Your task to perform on an android device: open chrome privacy settings Image 0: 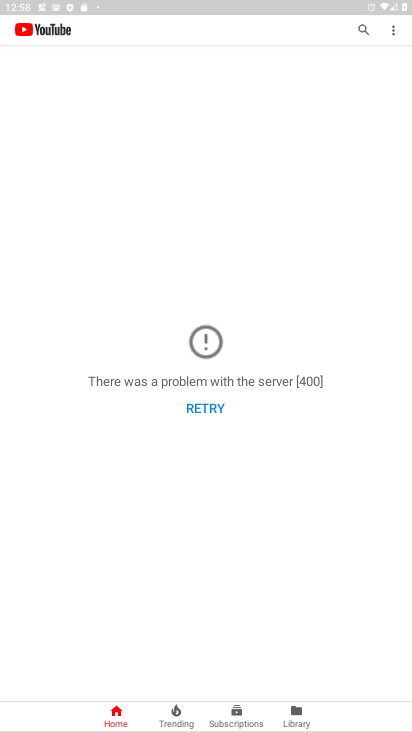
Step 0: press home button
Your task to perform on an android device: open chrome privacy settings Image 1: 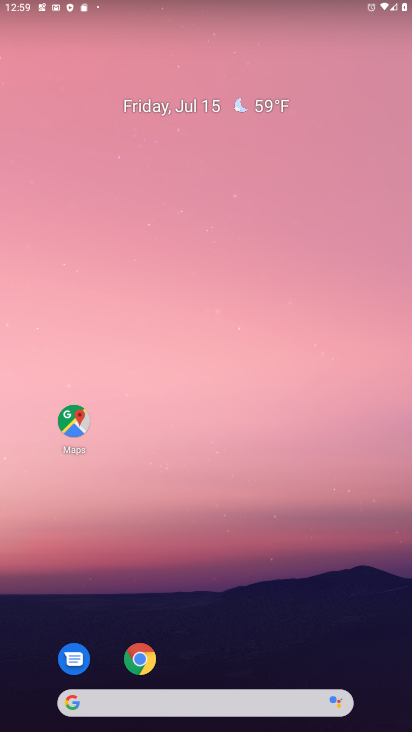
Step 1: click (139, 661)
Your task to perform on an android device: open chrome privacy settings Image 2: 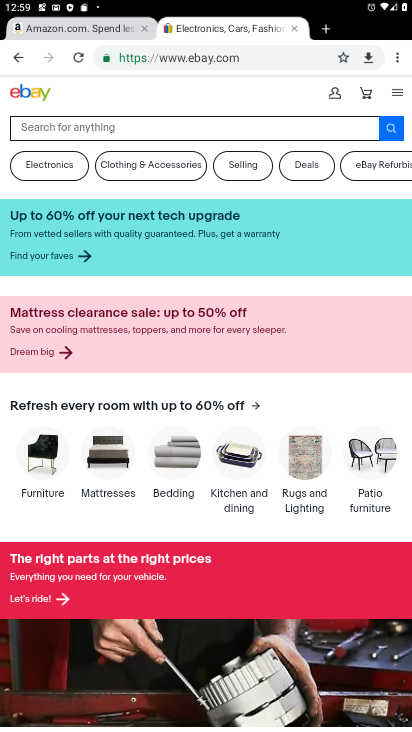
Step 2: click (397, 61)
Your task to perform on an android device: open chrome privacy settings Image 3: 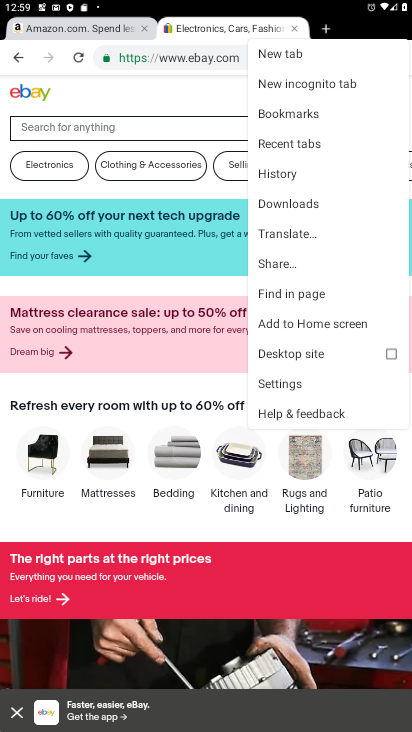
Step 3: click (282, 380)
Your task to perform on an android device: open chrome privacy settings Image 4: 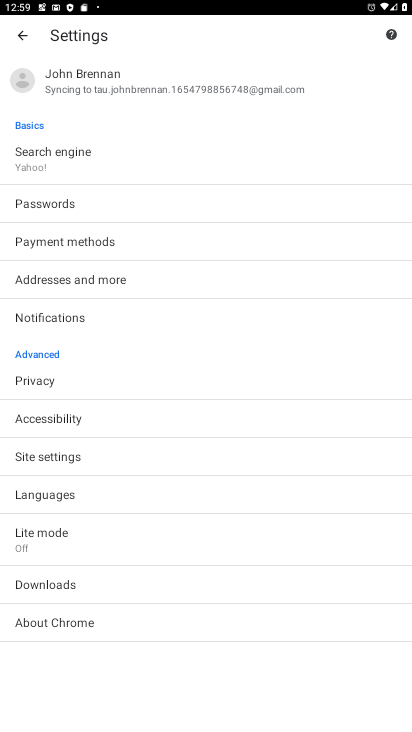
Step 4: click (42, 379)
Your task to perform on an android device: open chrome privacy settings Image 5: 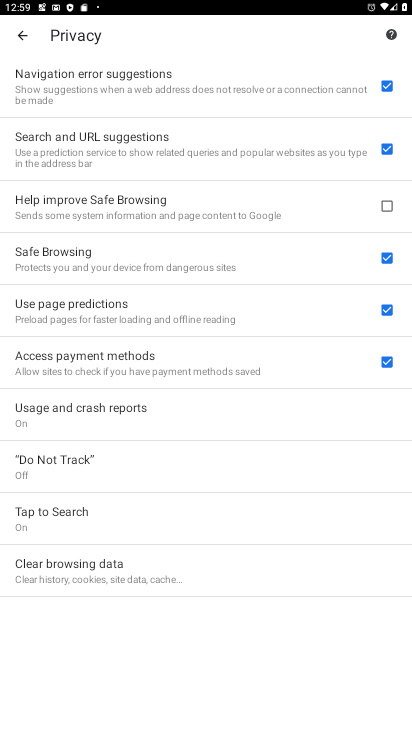
Step 5: task complete